Your task to perform on an android device: What's the weather today? Image 0: 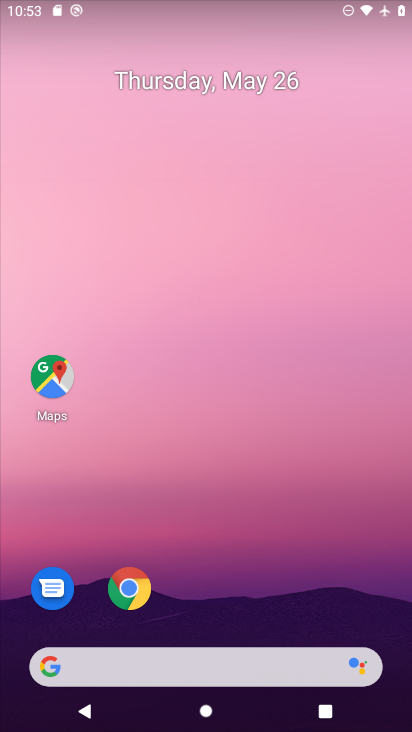
Step 0: click (198, 673)
Your task to perform on an android device: What's the weather today? Image 1: 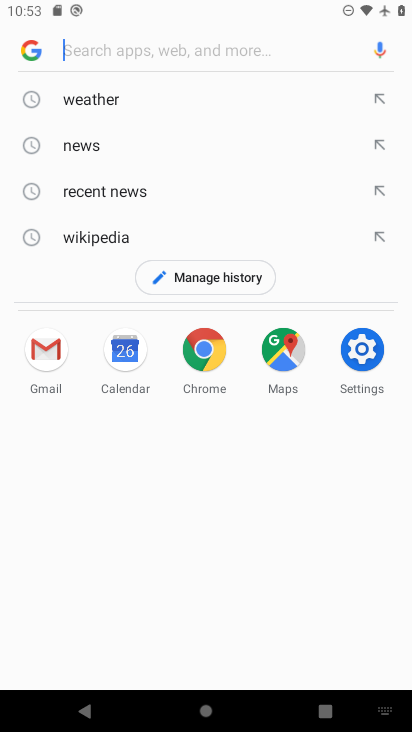
Step 1: click (97, 101)
Your task to perform on an android device: What's the weather today? Image 2: 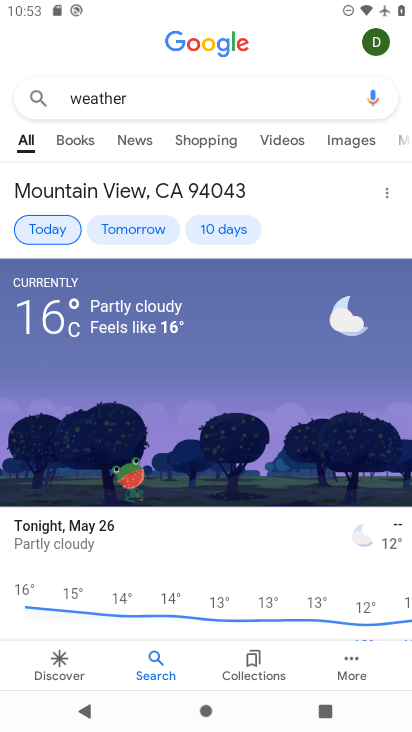
Step 2: task complete